Your task to perform on an android device: Go to calendar. Show me events next week Image 0: 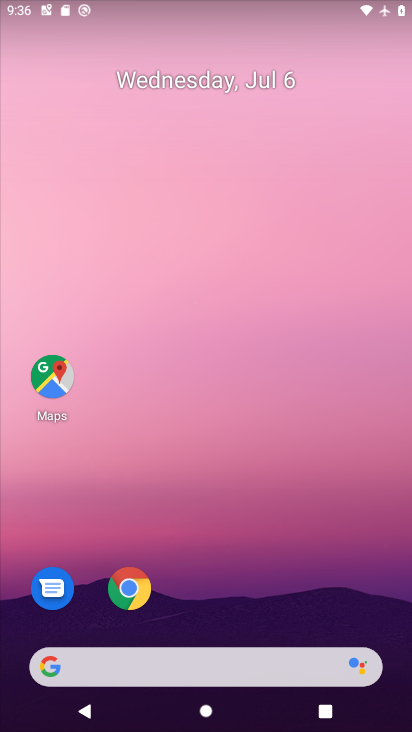
Step 0: drag from (183, 663) to (330, 4)
Your task to perform on an android device: Go to calendar. Show me events next week Image 1: 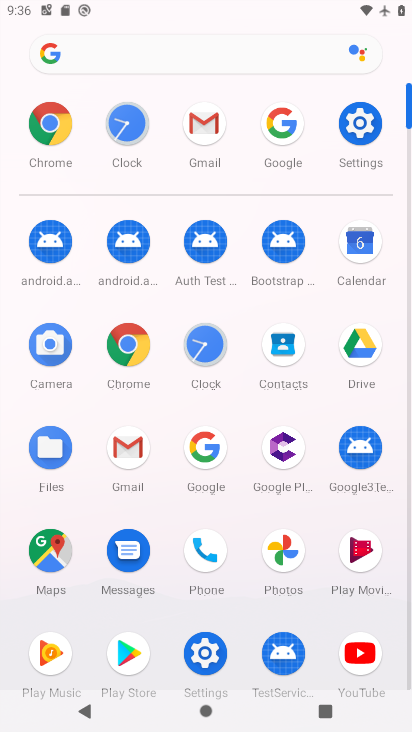
Step 1: click (360, 252)
Your task to perform on an android device: Go to calendar. Show me events next week Image 2: 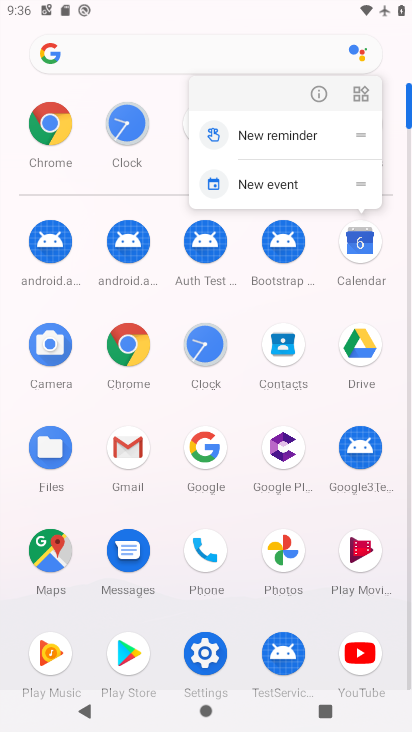
Step 2: click (360, 253)
Your task to perform on an android device: Go to calendar. Show me events next week Image 3: 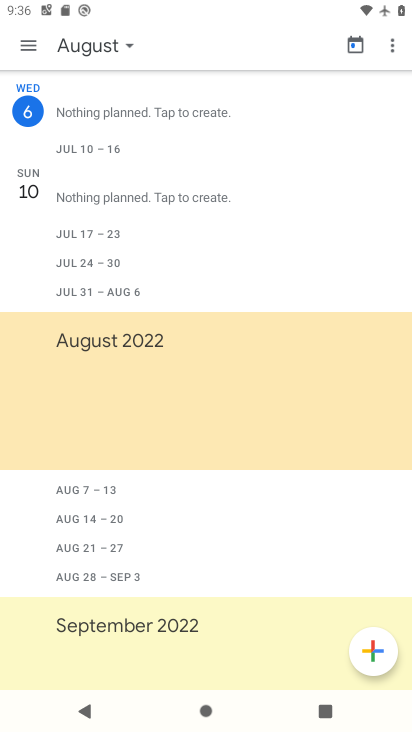
Step 3: click (74, 53)
Your task to perform on an android device: Go to calendar. Show me events next week Image 4: 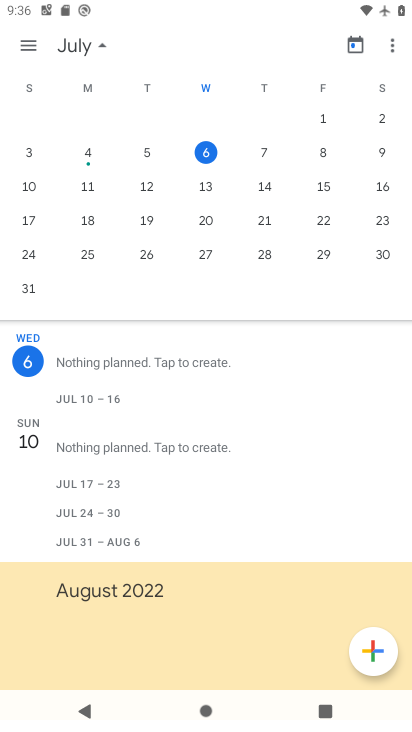
Step 4: click (27, 188)
Your task to perform on an android device: Go to calendar. Show me events next week Image 5: 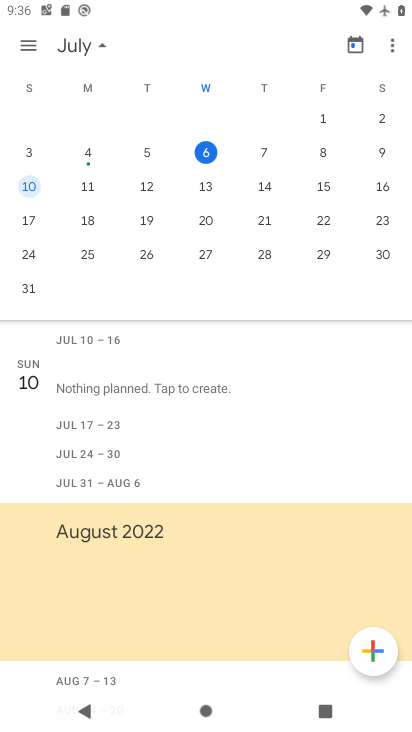
Step 5: click (32, 42)
Your task to perform on an android device: Go to calendar. Show me events next week Image 6: 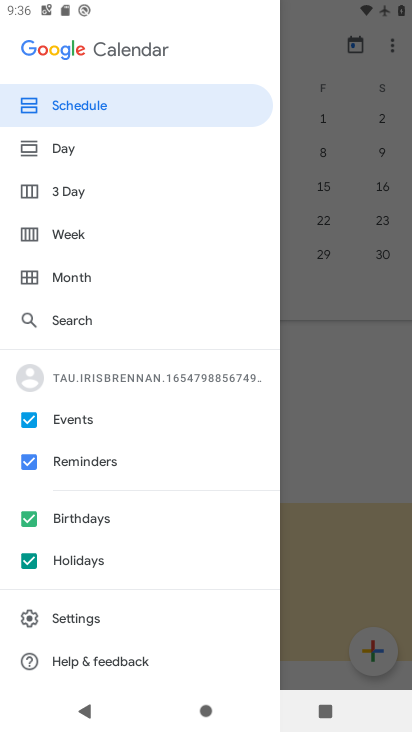
Step 6: click (51, 104)
Your task to perform on an android device: Go to calendar. Show me events next week Image 7: 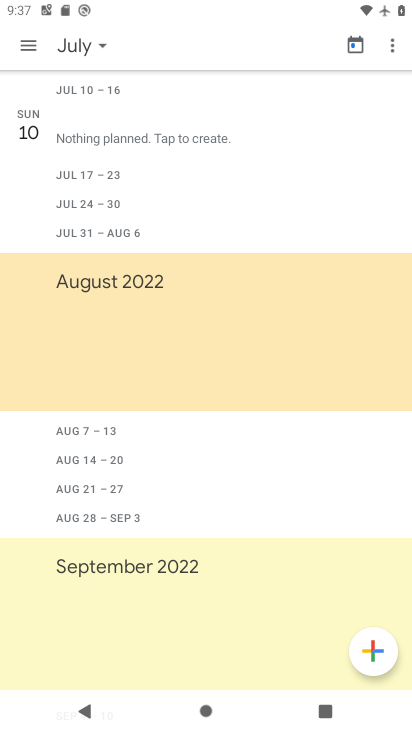
Step 7: task complete